Your task to perform on an android device: change alarm snooze length Image 0: 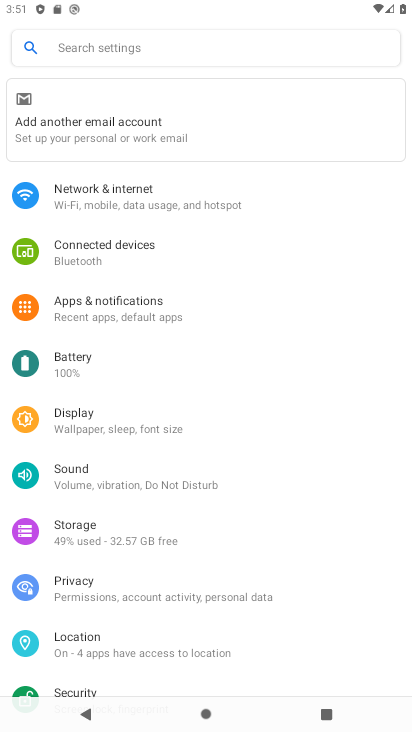
Step 0: press home button
Your task to perform on an android device: change alarm snooze length Image 1: 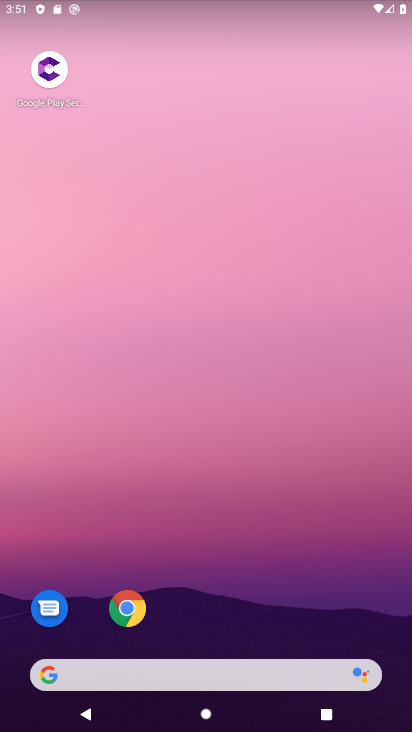
Step 1: drag from (209, 621) to (88, 63)
Your task to perform on an android device: change alarm snooze length Image 2: 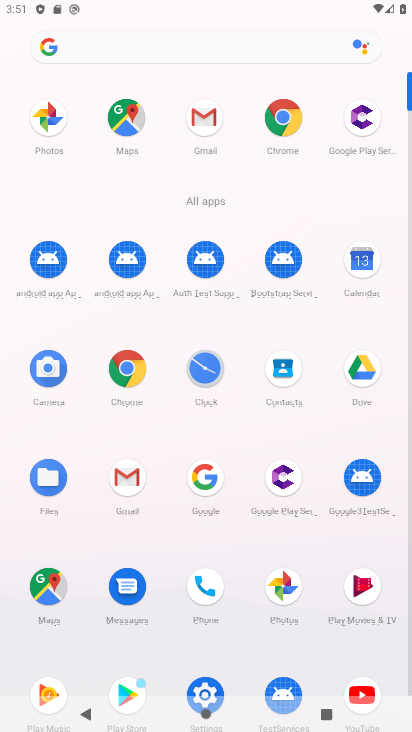
Step 2: click (198, 376)
Your task to perform on an android device: change alarm snooze length Image 3: 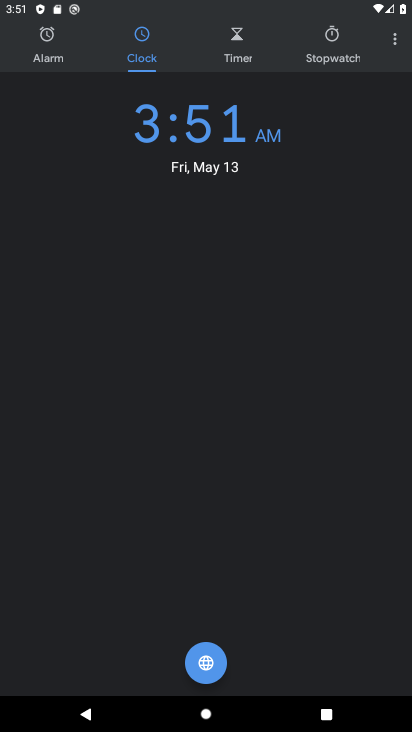
Step 3: click (392, 31)
Your task to perform on an android device: change alarm snooze length Image 4: 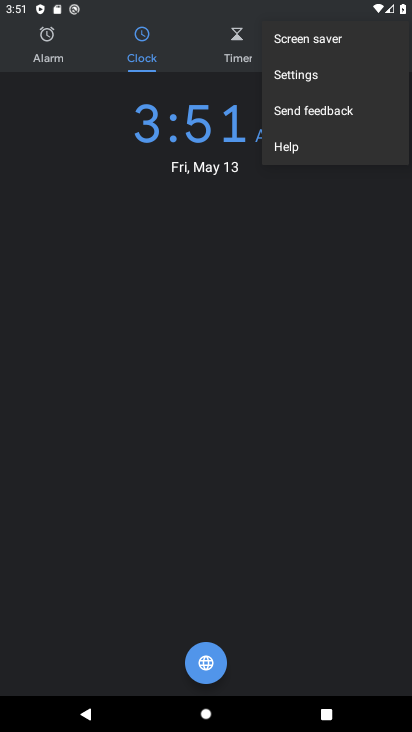
Step 4: click (316, 79)
Your task to perform on an android device: change alarm snooze length Image 5: 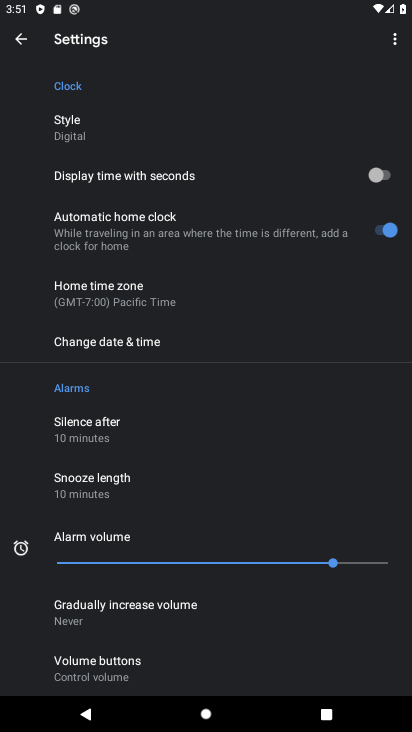
Step 5: click (130, 479)
Your task to perform on an android device: change alarm snooze length Image 6: 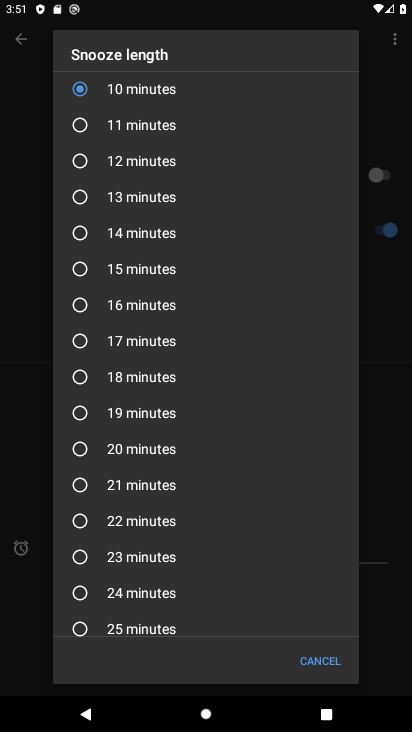
Step 6: click (149, 169)
Your task to perform on an android device: change alarm snooze length Image 7: 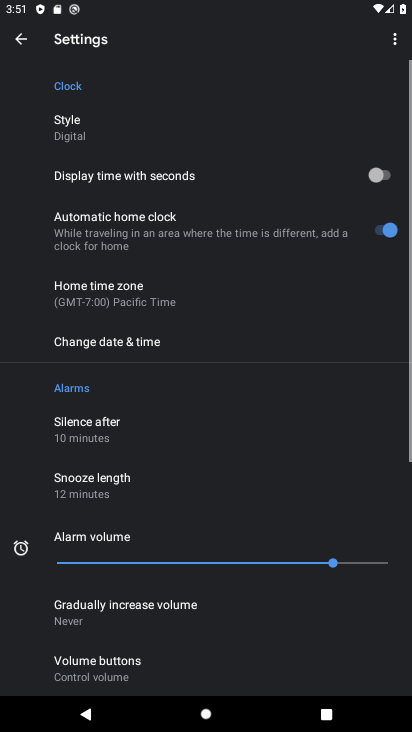
Step 7: task complete